Your task to perform on an android device: Open Wikipedia Image 0: 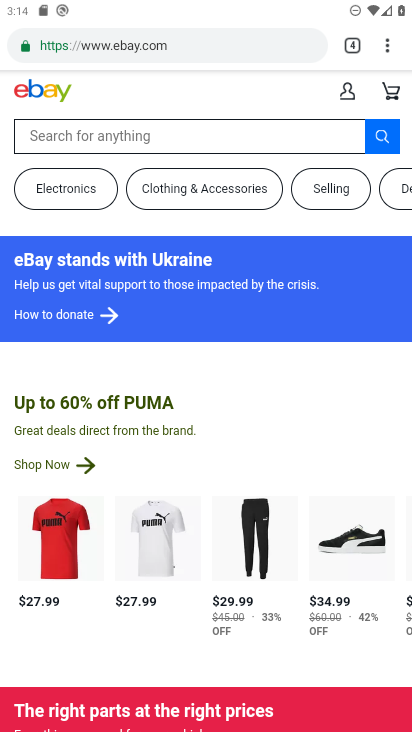
Step 0: click (156, 32)
Your task to perform on an android device: Open Wikipedia Image 1: 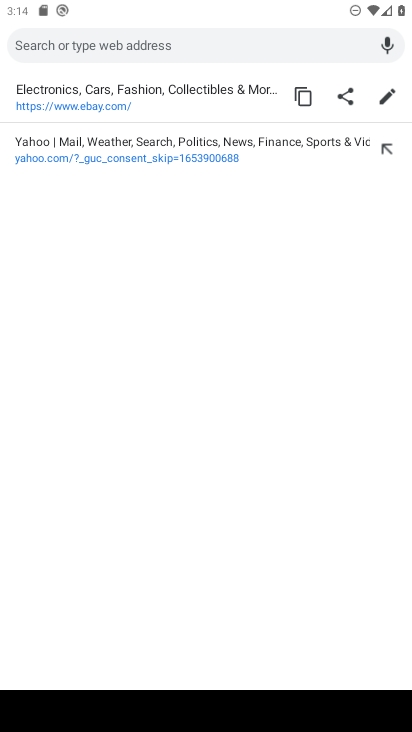
Step 1: type "wikipedia"
Your task to perform on an android device: Open Wikipedia Image 2: 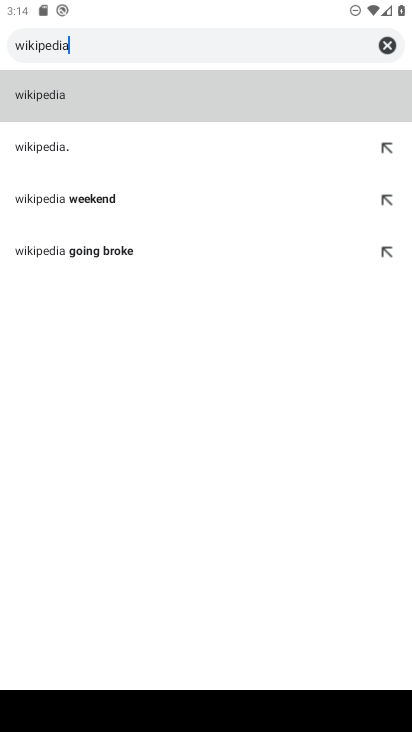
Step 2: click (74, 87)
Your task to perform on an android device: Open Wikipedia Image 3: 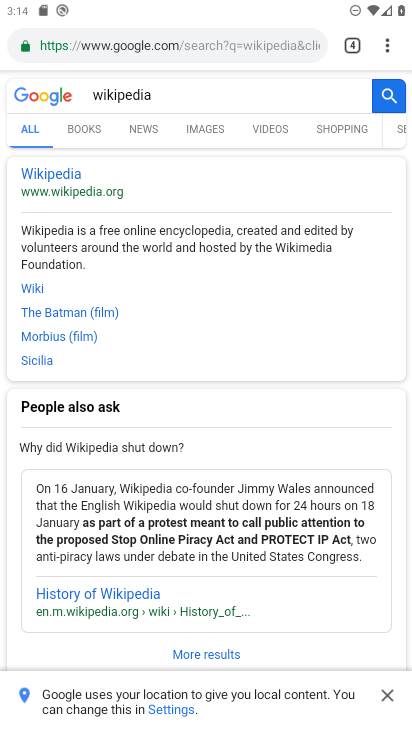
Step 3: click (39, 174)
Your task to perform on an android device: Open Wikipedia Image 4: 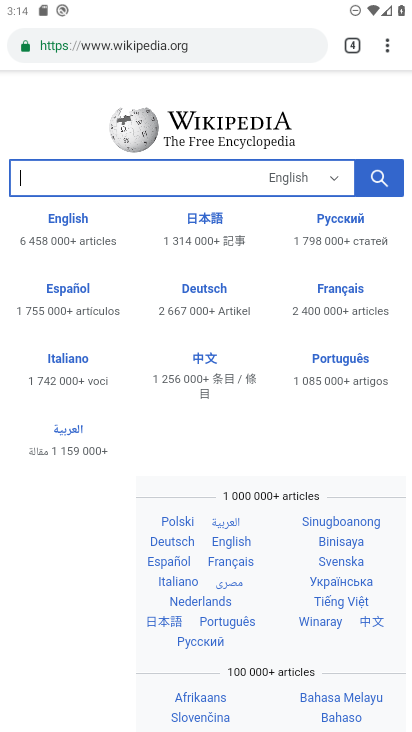
Step 4: task complete